Your task to perform on an android device: check data usage Image 0: 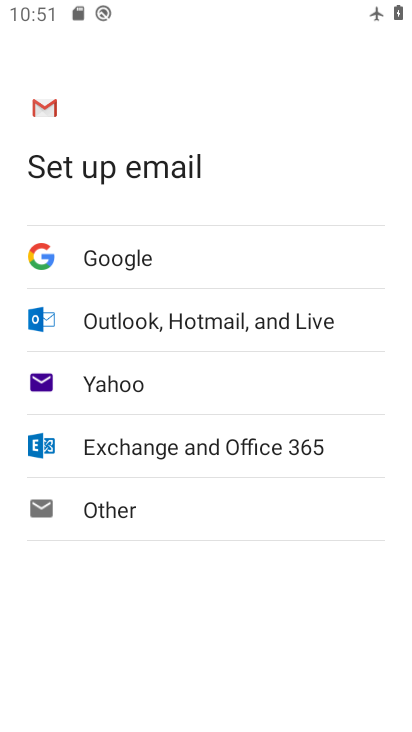
Step 0: press home button
Your task to perform on an android device: check data usage Image 1: 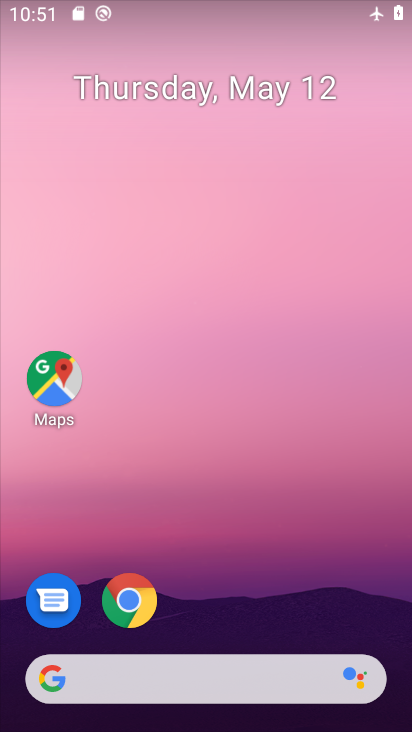
Step 1: drag from (200, 438) to (234, 83)
Your task to perform on an android device: check data usage Image 2: 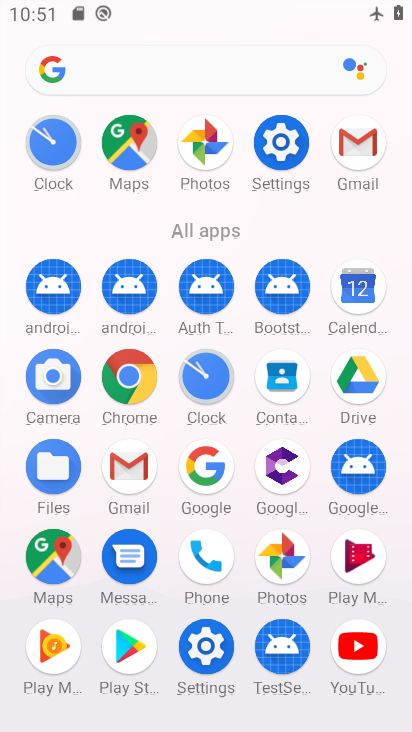
Step 2: click (294, 148)
Your task to perform on an android device: check data usage Image 3: 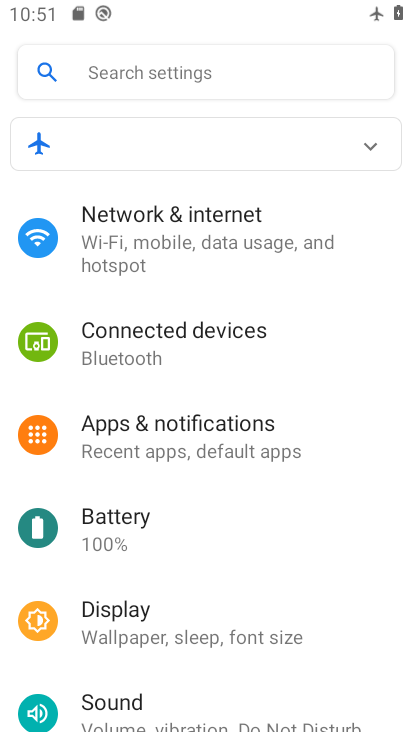
Step 3: click (103, 224)
Your task to perform on an android device: check data usage Image 4: 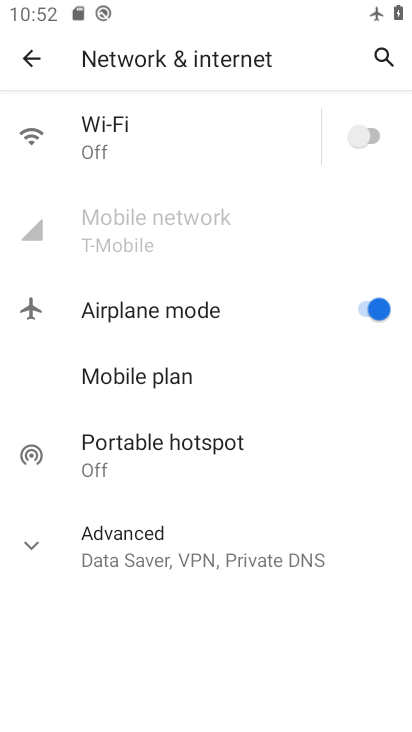
Step 4: click (108, 143)
Your task to perform on an android device: check data usage Image 5: 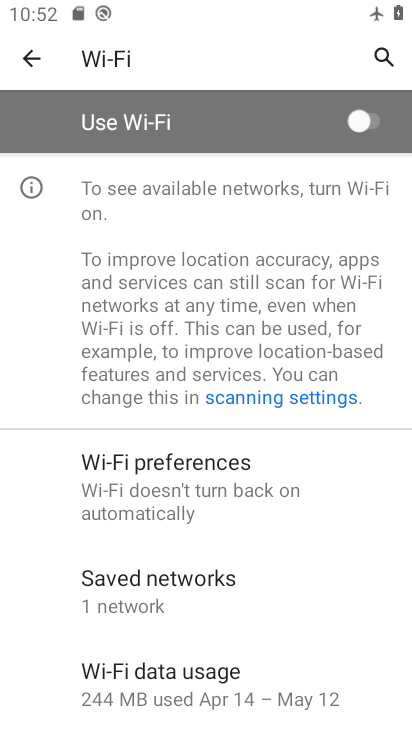
Step 5: task complete